Your task to perform on an android device: Go to display settings Image 0: 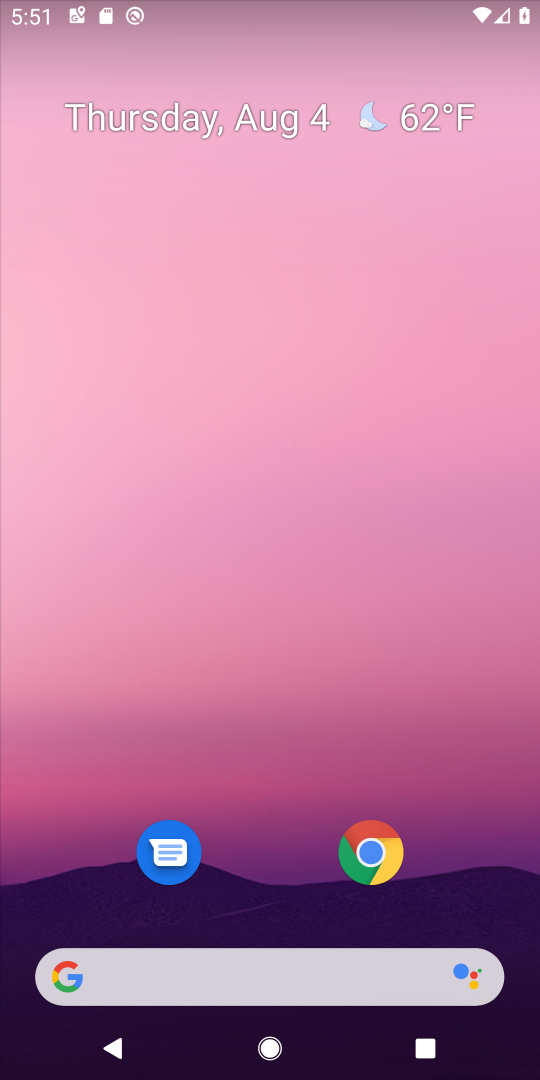
Step 0: drag from (232, 851) to (232, 124)
Your task to perform on an android device: Go to display settings Image 1: 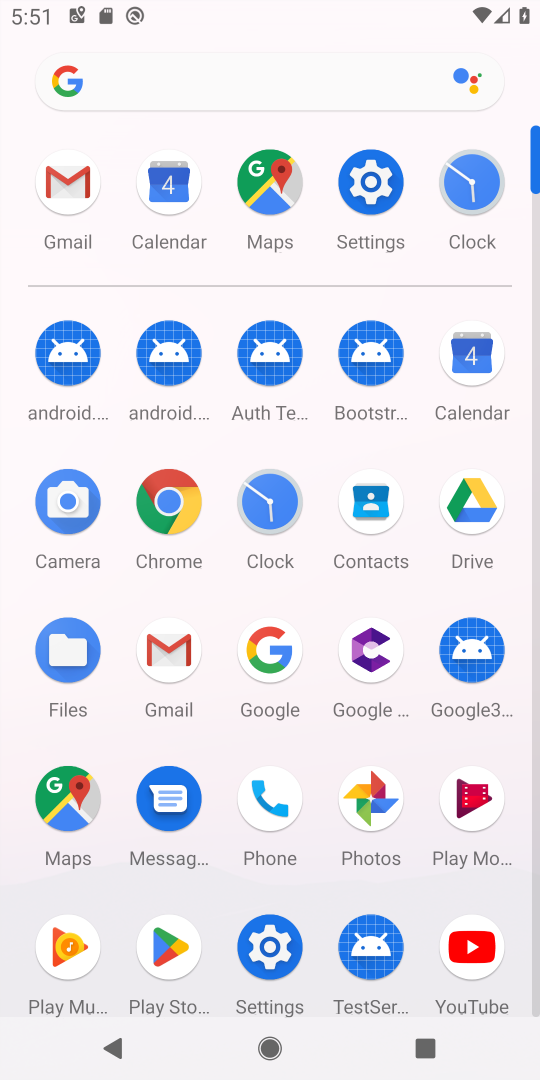
Step 1: click (369, 187)
Your task to perform on an android device: Go to display settings Image 2: 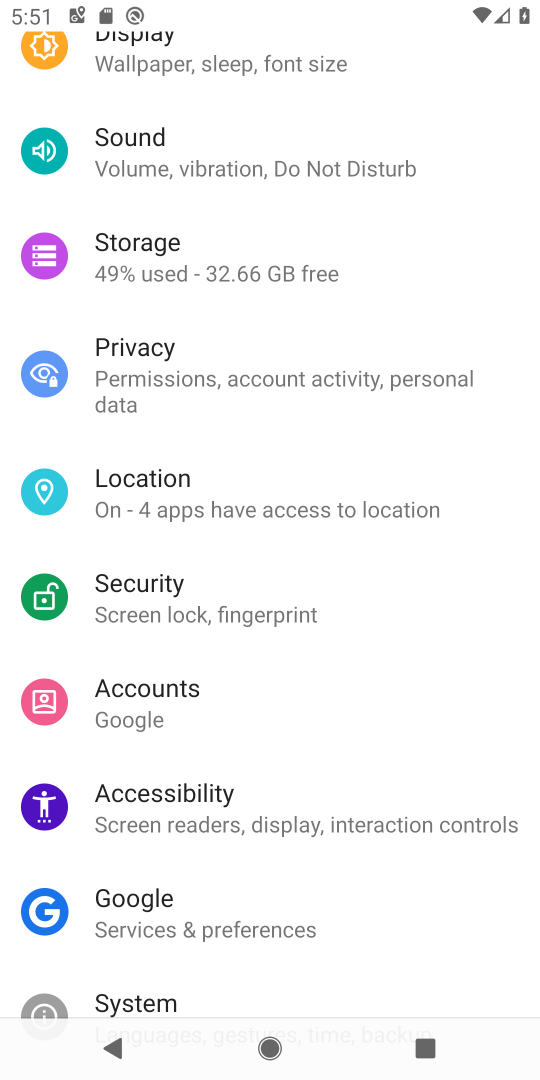
Step 2: click (126, 73)
Your task to perform on an android device: Go to display settings Image 3: 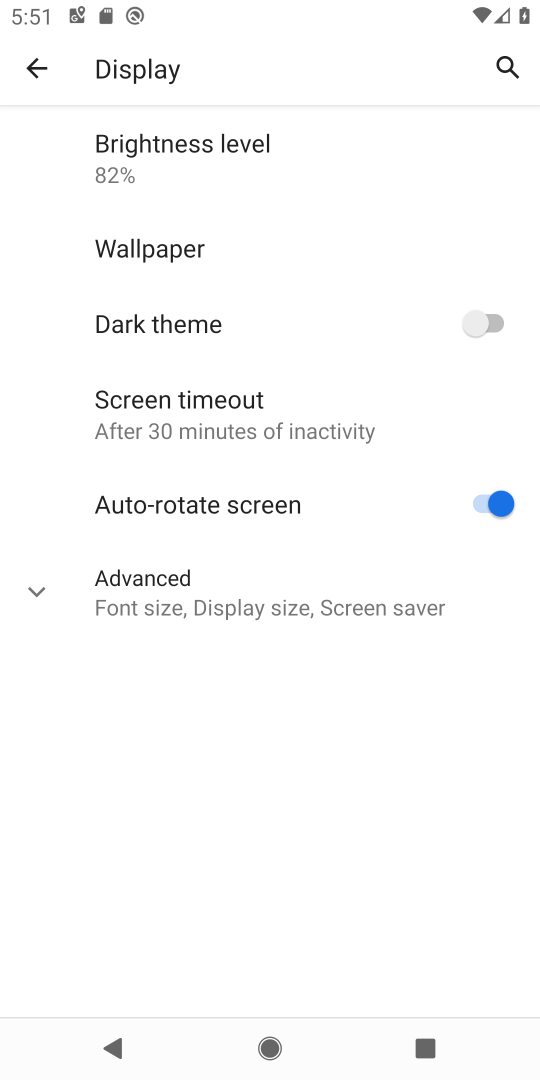
Step 3: task complete